Your task to perform on an android device: find photos in the google photos app Image 0: 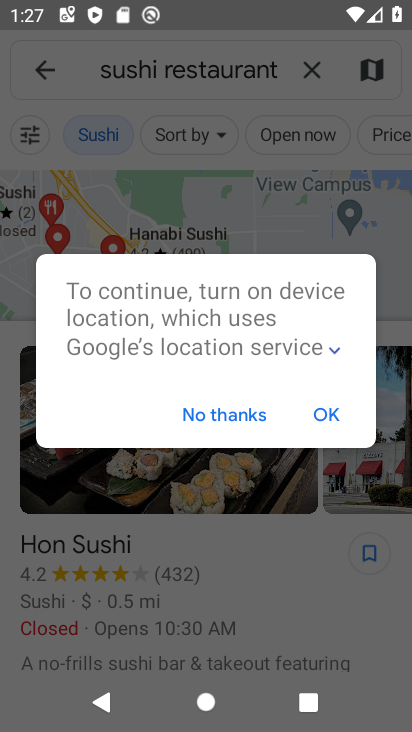
Step 0: press home button
Your task to perform on an android device: find photos in the google photos app Image 1: 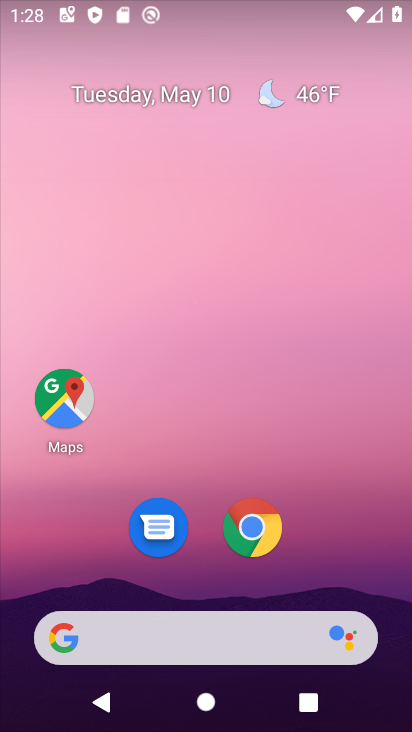
Step 1: drag from (361, 542) to (357, 17)
Your task to perform on an android device: find photos in the google photos app Image 2: 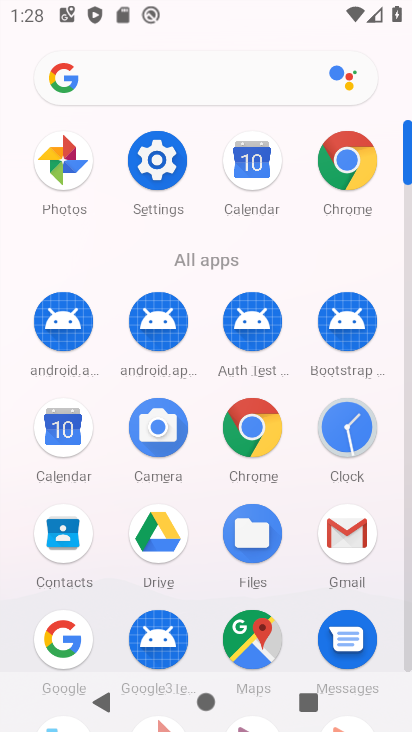
Step 2: click (69, 161)
Your task to perform on an android device: find photos in the google photos app Image 3: 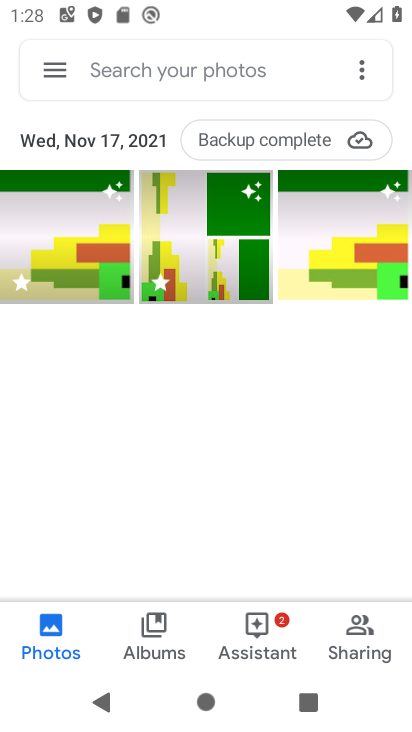
Step 3: click (37, 647)
Your task to perform on an android device: find photos in the google photos app Image 4: 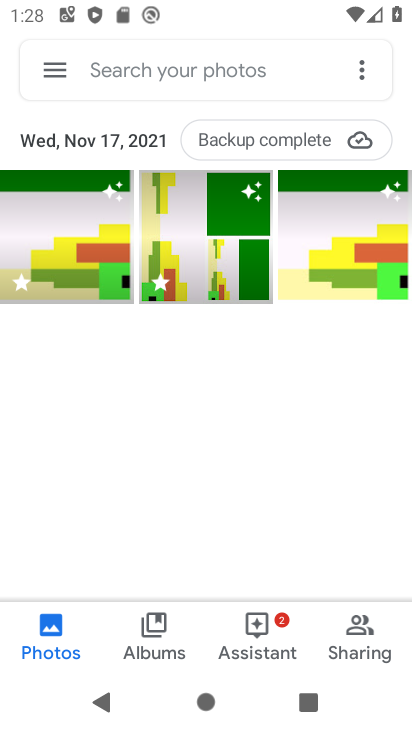
Step 4: task complete